Your task to perform on an android device: Open Chrome and go to settings Image 0: 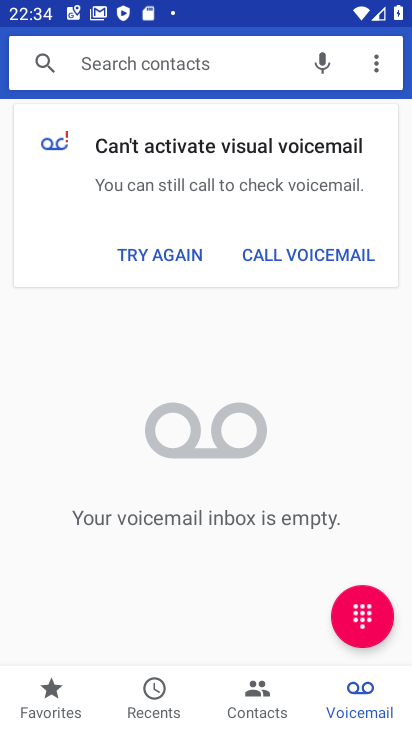
Step 0: press home button
Your task to perform on an android device: Open Chrome and go to settings Image 1: 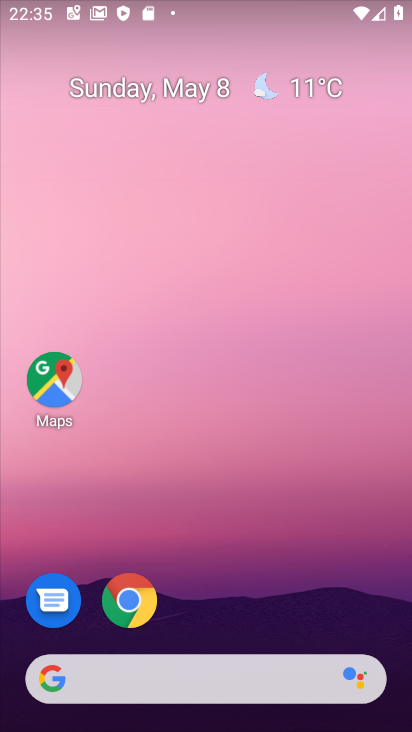
Step 1: click (134, 594)
Your task to perform on an android device: Open Chrome and go to settings Image 2: 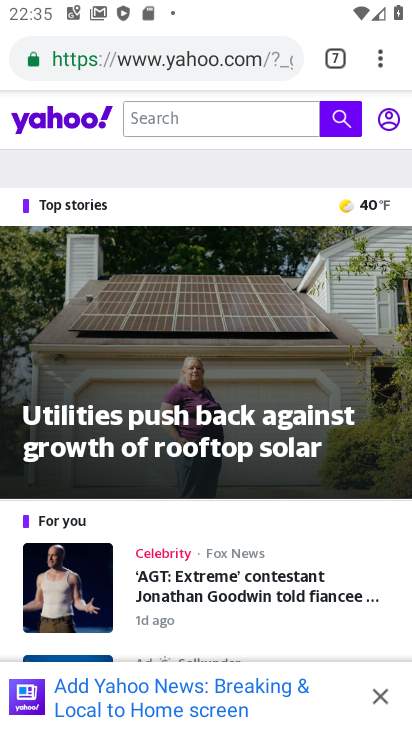
Step 2: click (384, 47)
Your task to perform on an android device: Open Chrome and go to settings Image 3: 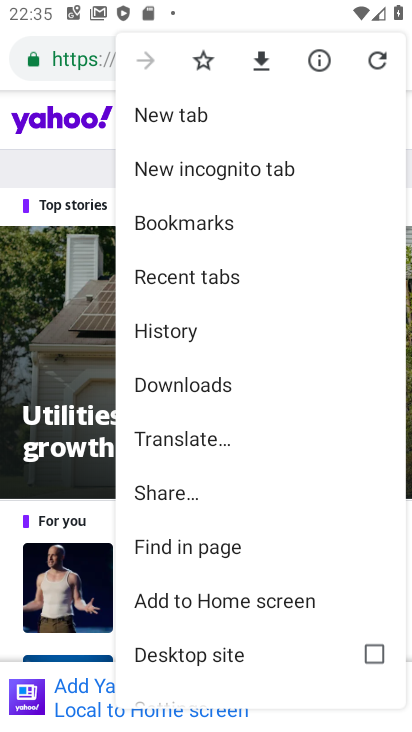
Step 3: drag from (204, 603) to (300, 91)
Your task to perform on an android device: Open Chrome and go to settings Image 4: 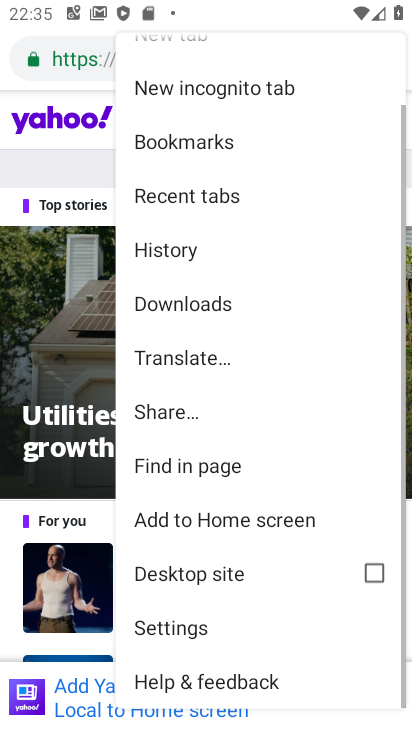
Step 4: click (162, 632)
Your task to perform on an android device: Open Chrome and go to settings Image 5: 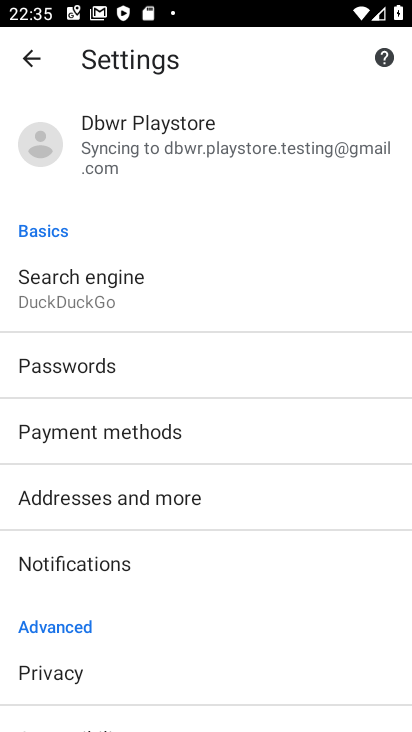
Step 5: task complete